Your task to perform on an android device: Open internet settings Image 0: 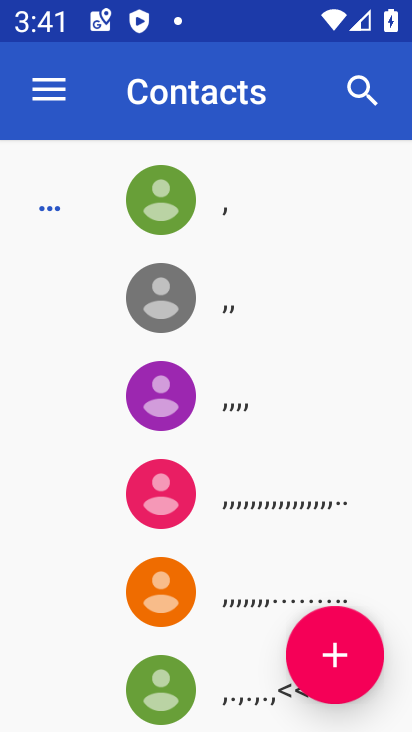
Step 0: press home button
Your task to perform on an android device: Open internet settings Image 1: 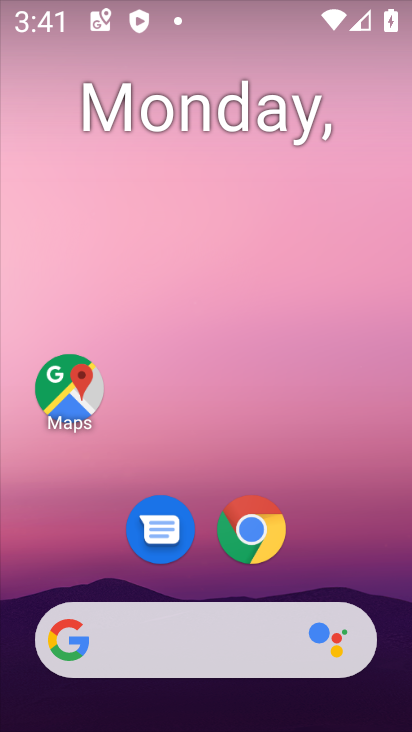
Step 1: drag from (221, 725) to (194, 183)
Your task to perform on an android device: Open internet settings Image 2: 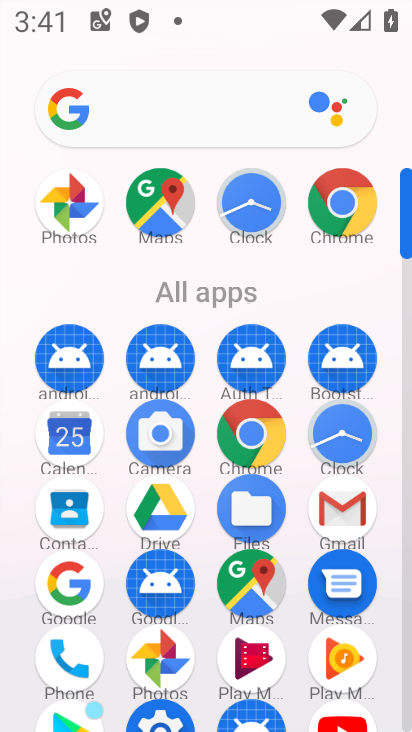
Step 2: click (164, 715)
Your task to perform on an android device: Open internet settings Image 3: 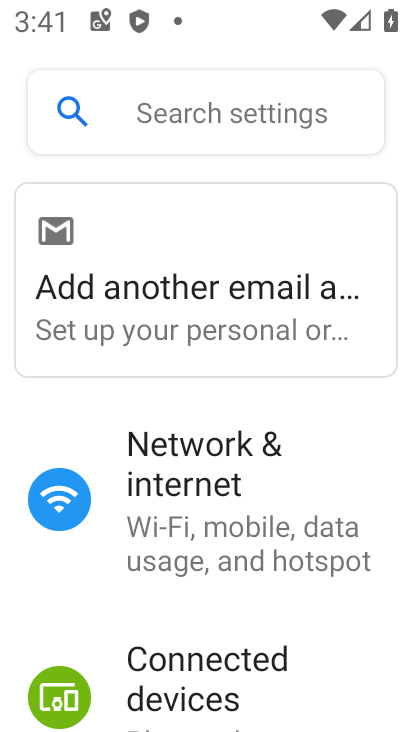
Step 3: click (172, 490)
Your task to perform on an android device: Open internet settings Image 4: 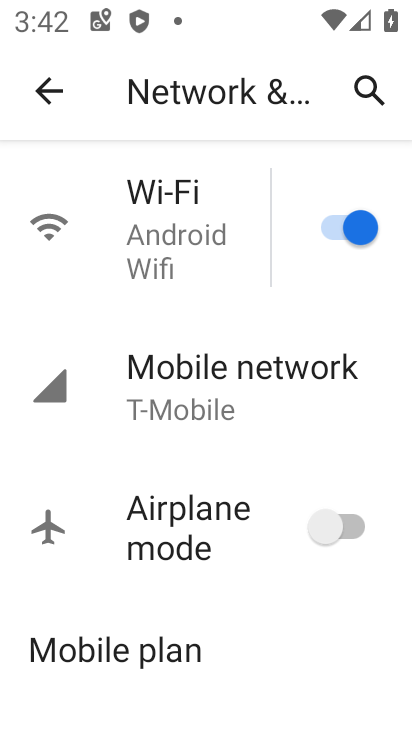
Step 4: task complete